Your task to perform on an android device: Go to network settings Image 0: 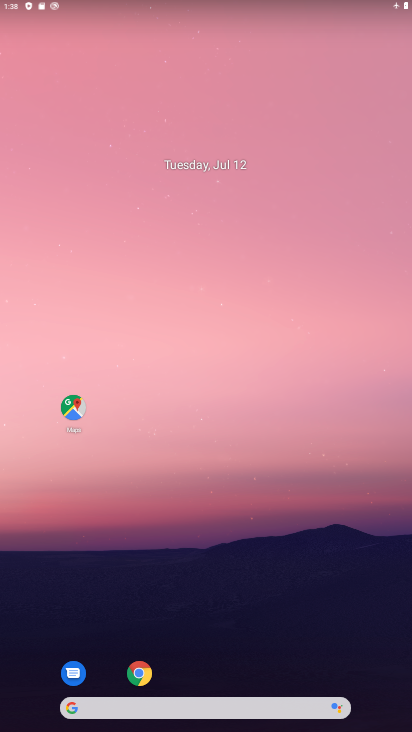
Step 0: drag from (230, 669) to (253, 124)
Your task to perform on an android device: Go to network settings Image 1: 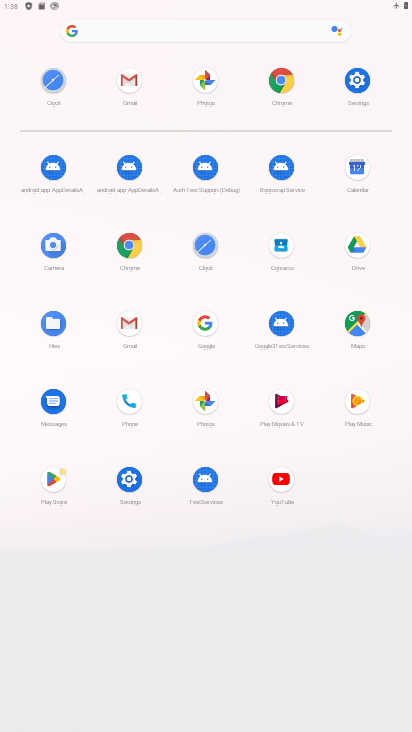
Step 1: click (344, 73)
Your task to perform on an android device: Go to network settings Image 2: 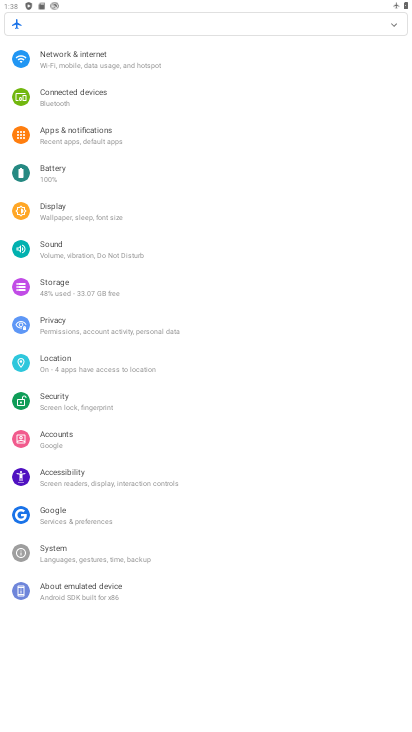
Step 2: click (113, 59)
Your task to perform on an android device: Go to network settings Image 3: 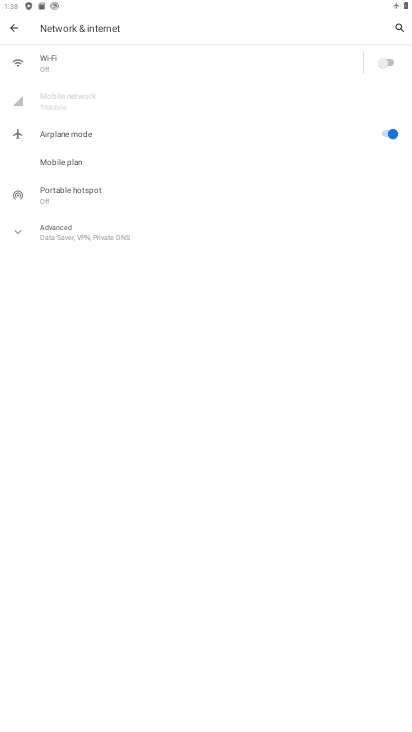
Step 3: task complete